Your task to perform on an android device: change timer sound Image 0: 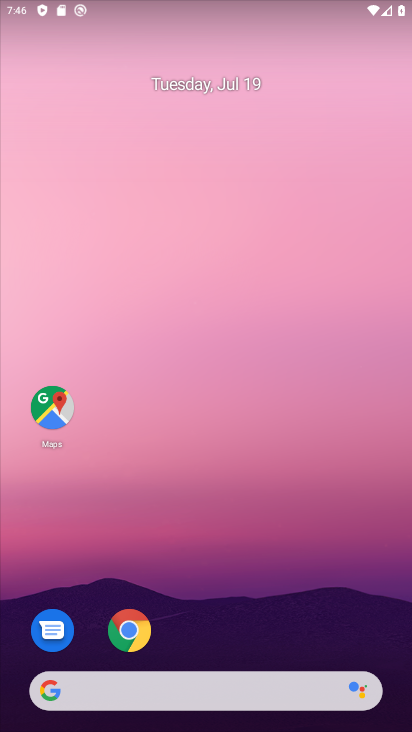
Step 0: drag from (204, 691) to (203, 71)
Your task to perform on an android device: change timer sound Image 1: 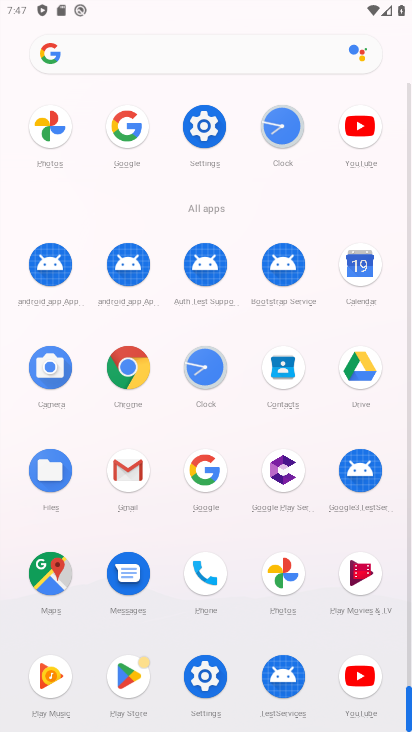
Step 1: click (203, 368)
Your task to perform on an android device: change timer sound Image 2: 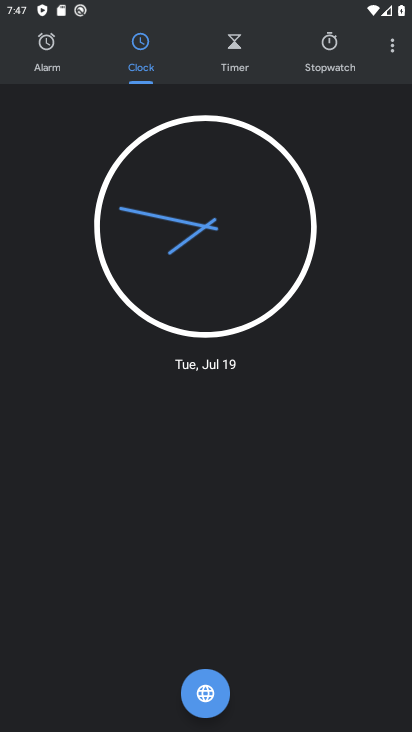
Step 2: click (392, 48)
Your task to perform on an android device: change timer sound Image 3: 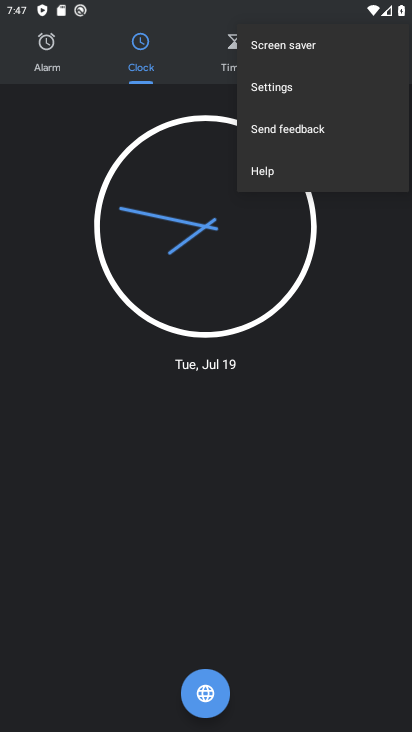
Step 3: click (271, 103)
Your task to perform on an android device: change timer sound Image 4: 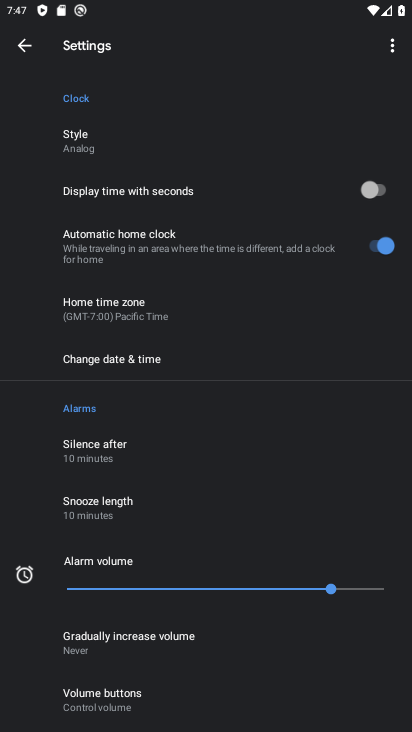
Step 4: drag from (215, 613) to (218, 283)
Your task to perform on an android device: change timer sound Image 5: 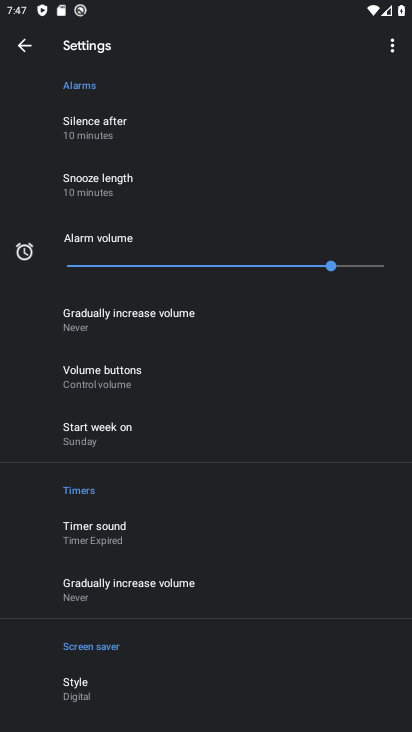
Step 5: click (135, 532)
Your task to perform on an android device: change timer sound Image 6: 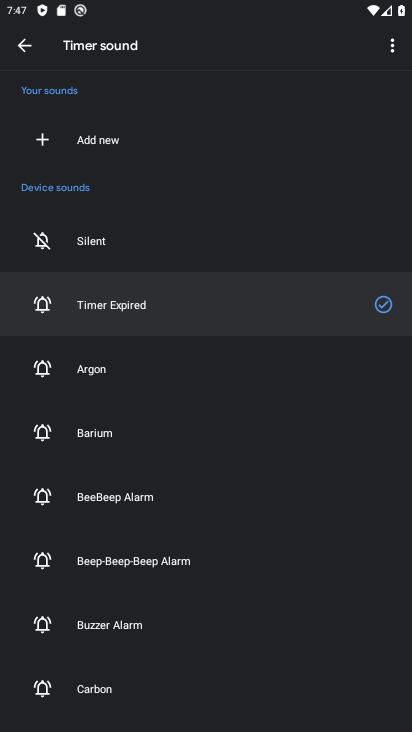
Step 6: click (88, 440)
Your task to perform on an android device: change timer sound Image 7: 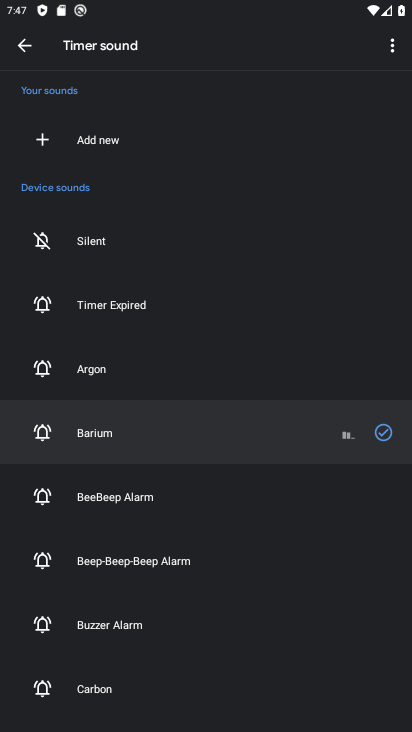
Step 7: task complete